Your task to perform on an android device: find photos in the google photos app Image 0: 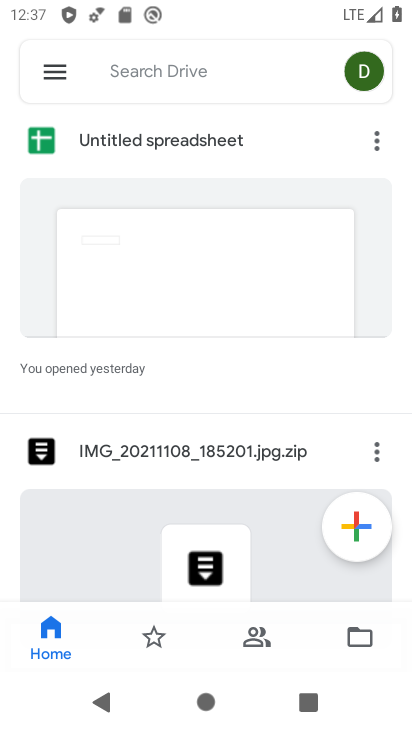
Step 0: press home button
Your task to perform on an android device: find photos in the google photos app Image 1: 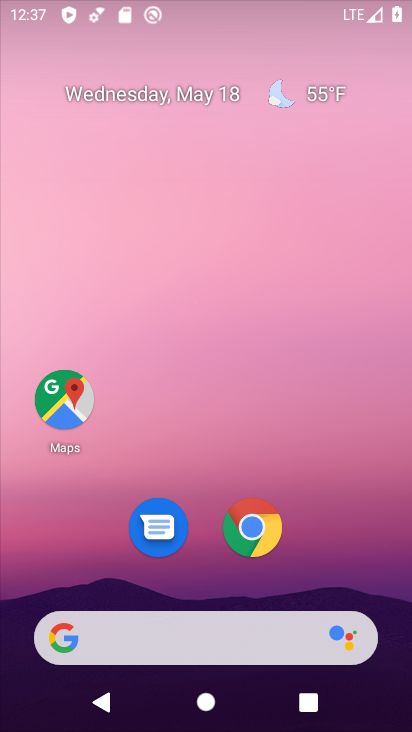
Step 1: drag from (327, 512) to (189, 37)
Your task to perform on an android device: find photos in the google photos app Image 2: 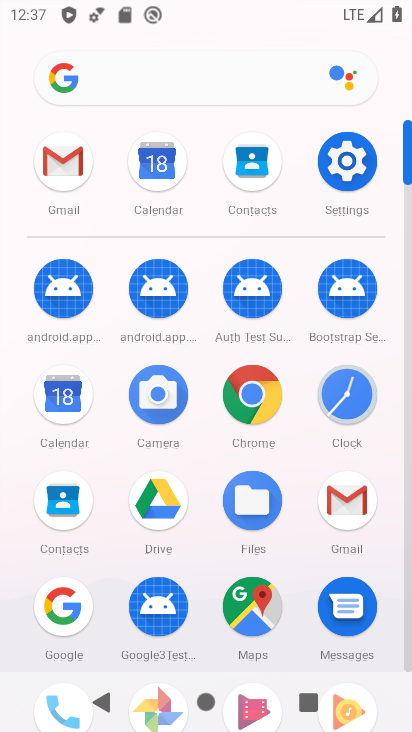
Step 2: drag from (309, 461) to (289, 168)
Your task to perform on an android device: find photos in the google photos app Image 3: 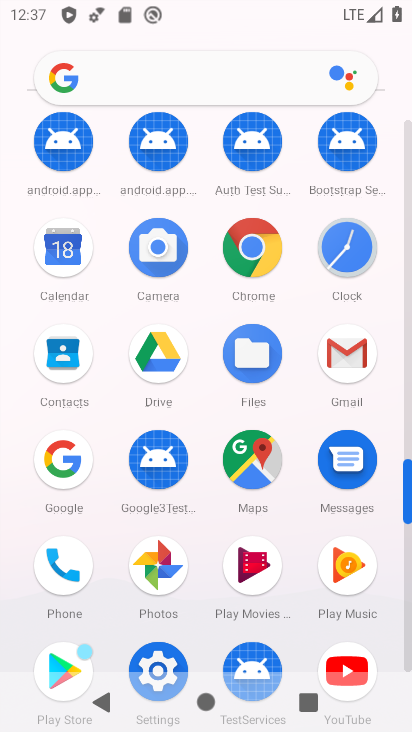
Step 3: click (169, 572)
Your task to perform on an android device: find photos in the google photos app Image 4: 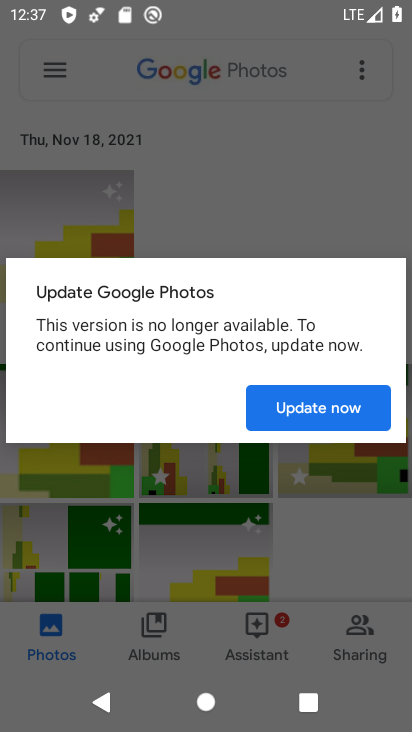
Step 4: click (322, 392)
Your task to perform on an android device: find photos in the google photos app Image 5: 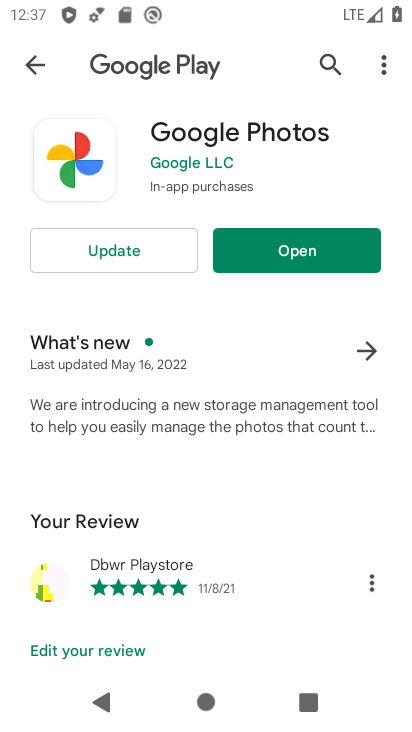
Step 5: click (117, 252)
Your task to perform on an android device: find photos in the google photos app Image 6: 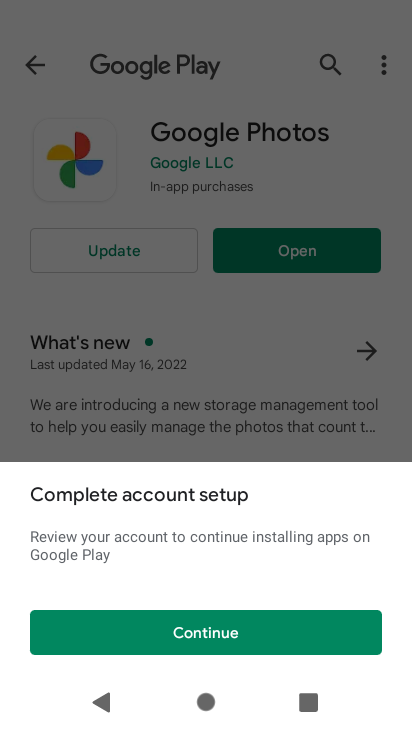
Step 6: click (250, 629)
Your task to perform on an android device: find photos in the google photos app Image 7: 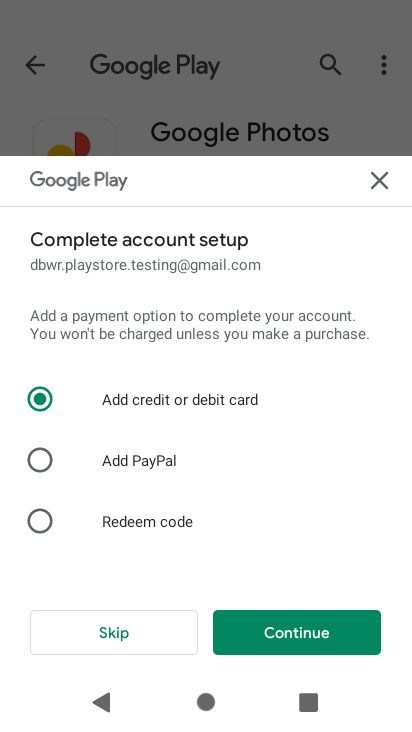
Step 7: click (381, 178)
Your task to perform on an android device: find photos in the google photos app Image 8: 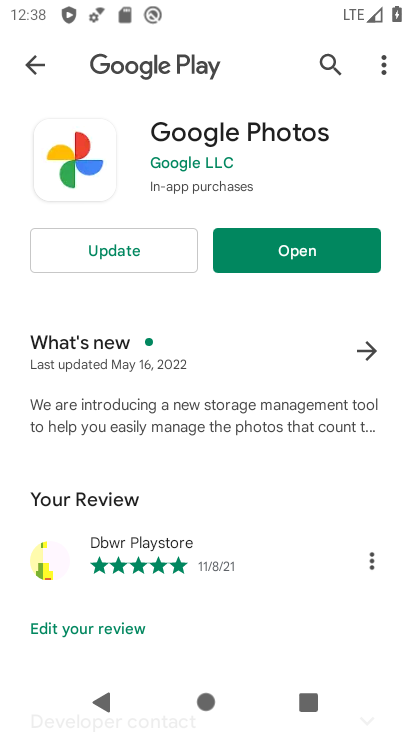
Step 8: click (118, 249)
Your task to perform on an android device: find photos in the google photos app Image 9: 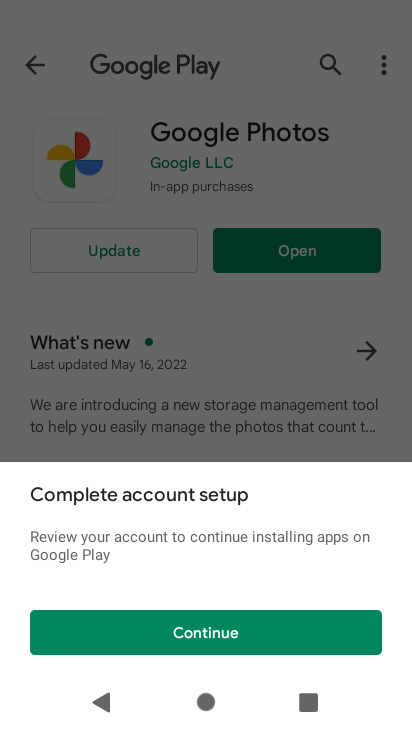
Step 9: task complete